Your task to perform on an android device: What's a good restaurant in Boston? Image 0: 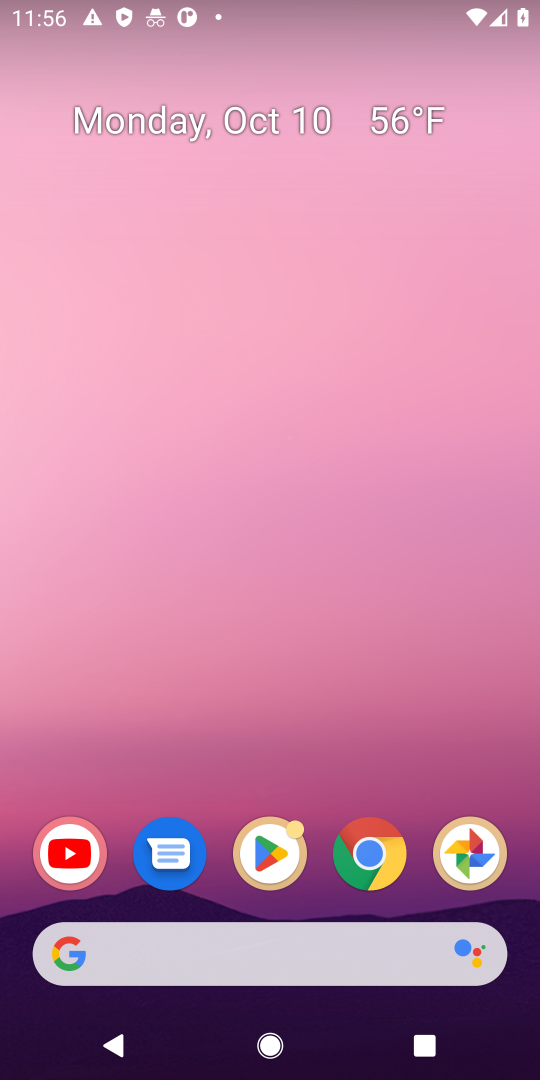
Step 0: drag from (282, 797) to (298, 42)
Your task to perform on an android device: What's a good restaurant in Boston? Image 1: 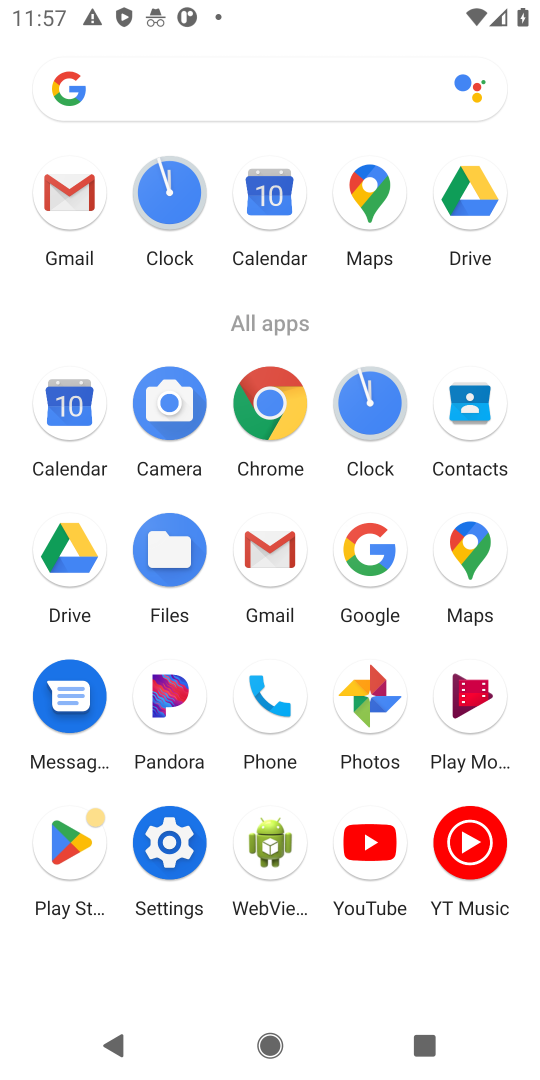
Step 1: click (261, 392)
Your task to perform on an android device: What's a good restaurant in Boston? Image 2: 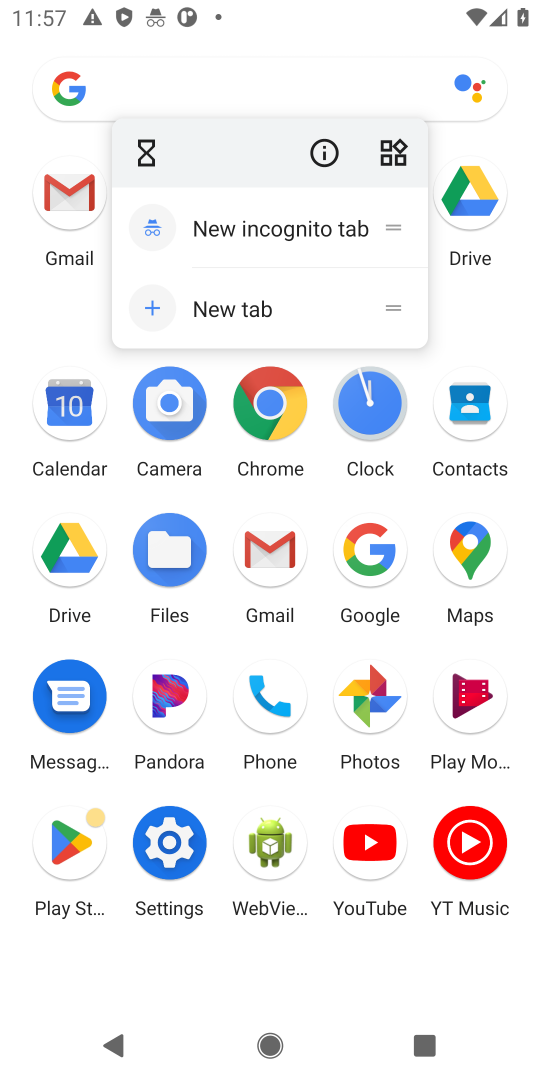
Step 2: click (277, 407)
Your task to perform on an android device: What's a good restaurant in Boston? Image 3: 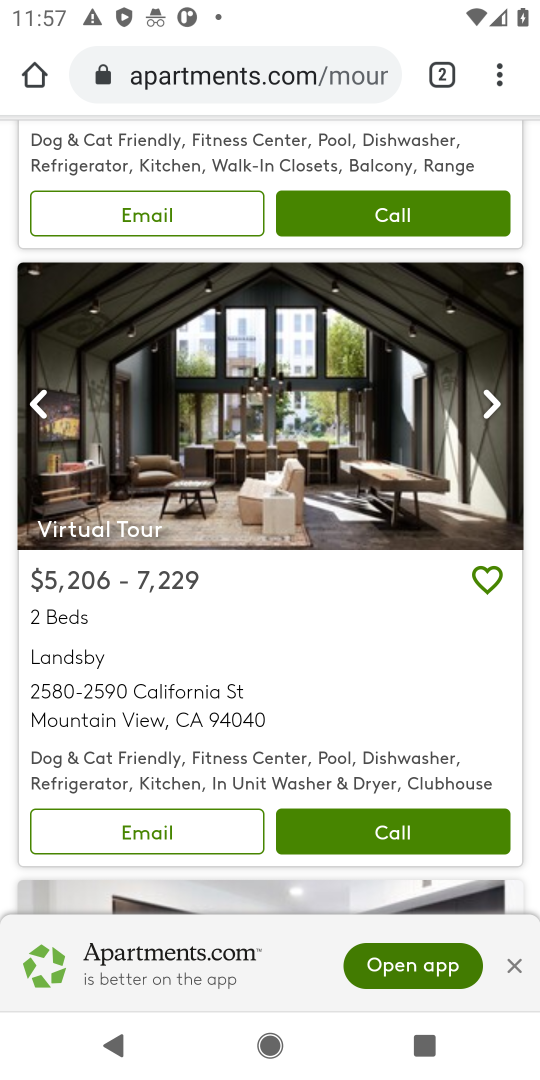
Step 3: click (252, 67)
Your task to perform on an android device: What's a good restaurant in Boston? Image 4: 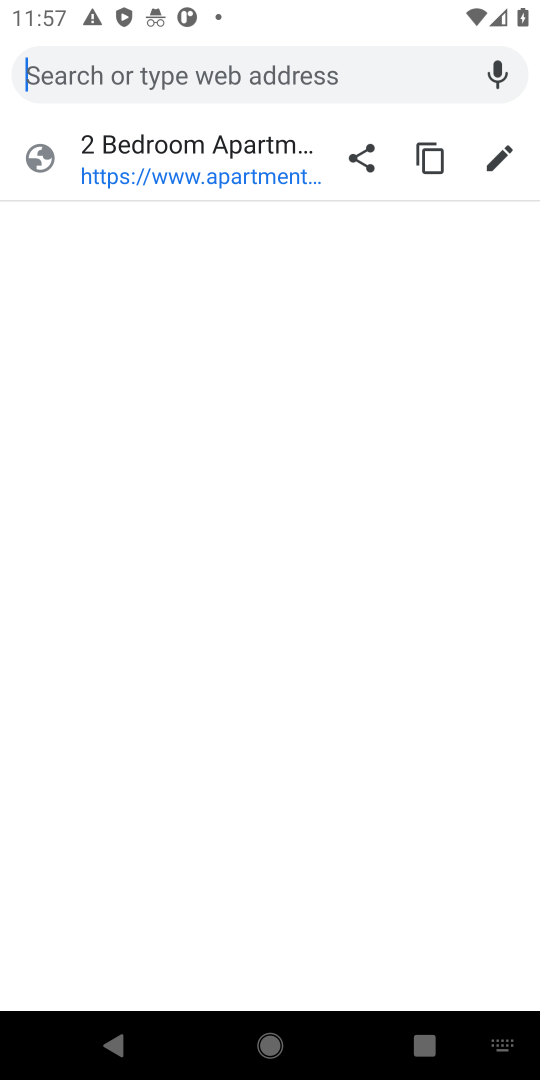
Step 4: type "What's a good restaurant in Boston?"
Your task to perform on an android device: What's a good restaurant in Boston? Image 5: 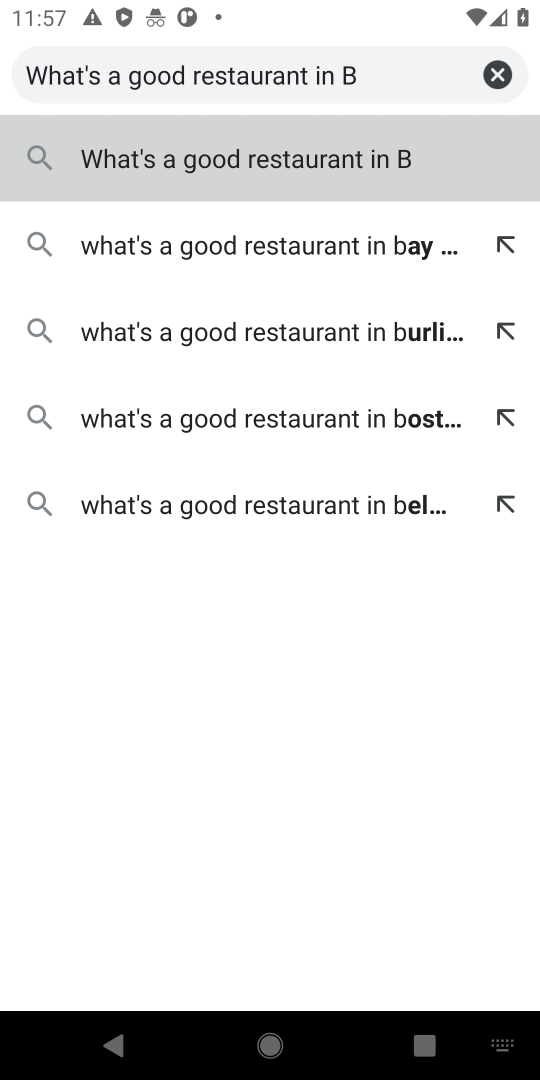
Step 5: click (271, 163)
Your task to perform on an android device: What's a good restaurant in Boston? Image 6: 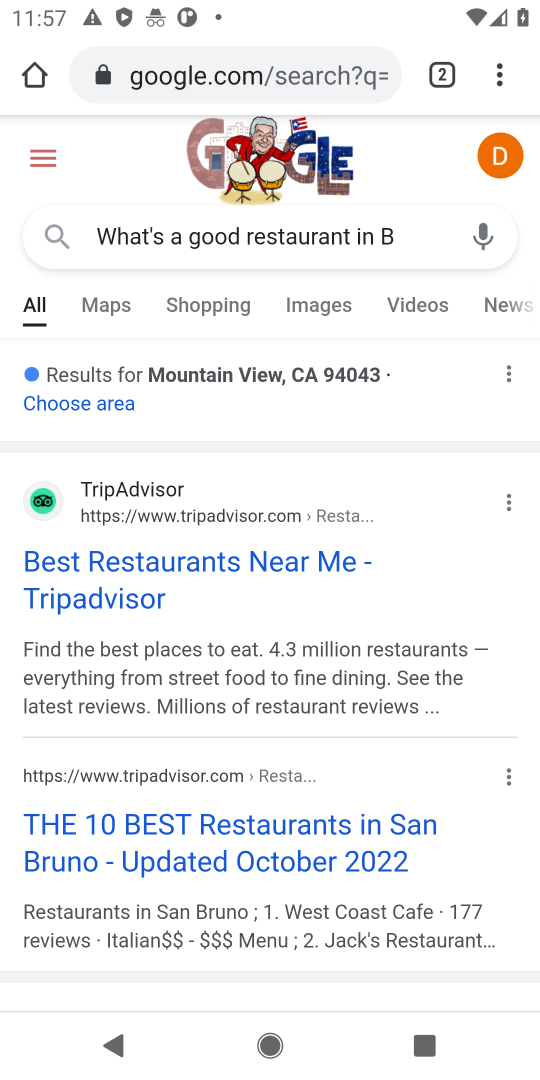
Step 6: task complete